Your task to perform on an android device: turn on improve location accuracy Image 0: 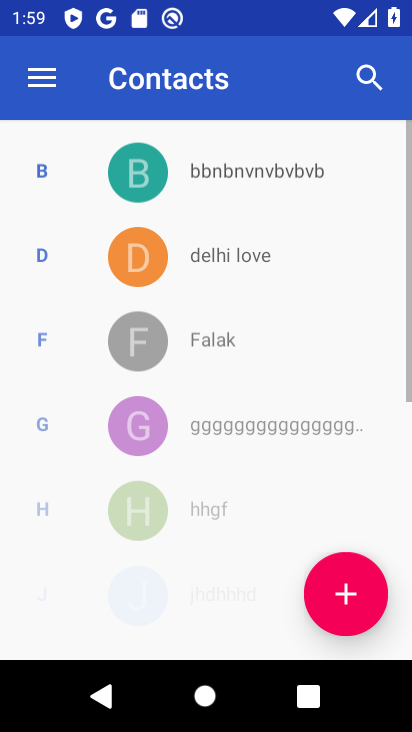
Step 0: drag from (201, 563) to (277, 99)
Your task to perform on an android device: turn on improve location accuracy Image 1: 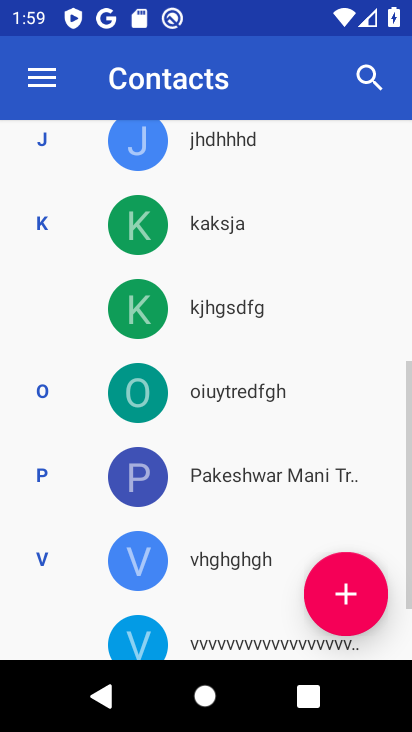
Step 1: press back button
Your task to perform on an android device: turn on improve location accuracy Image 2: 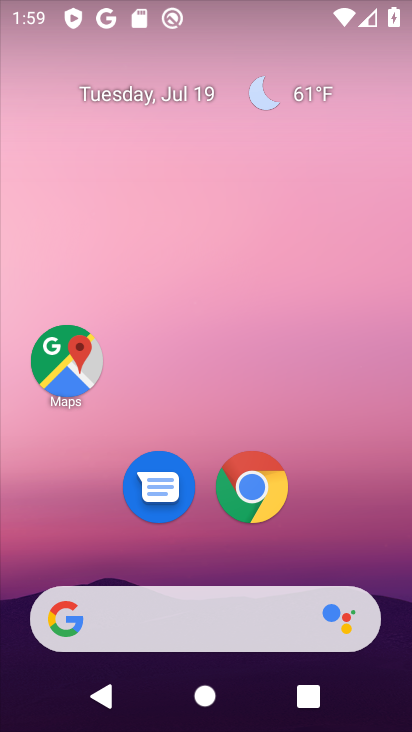
Step 2: drag from (222, 564) to (259, 26)
Your task to perform on an android device: turn on improve location accuracy Image 3: 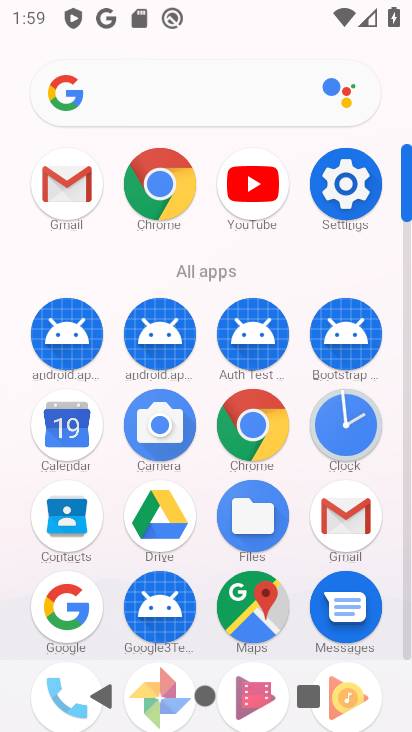
Step 3: click (343, 178)
Your task to perform on an android device: turn on improve location accuracy Image 4: 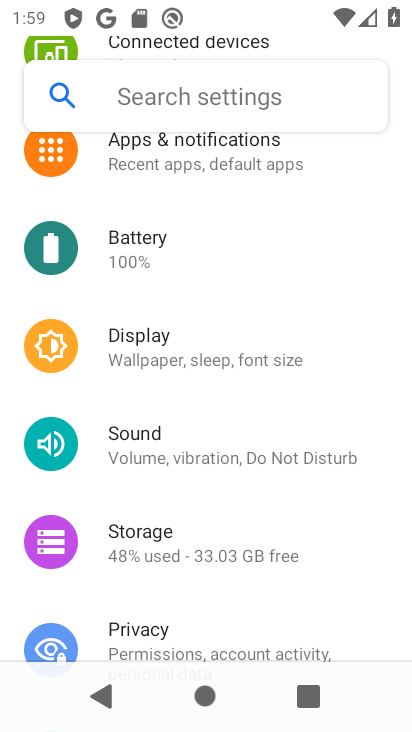
Step 4: drag from (177, 604) to (254, 83)
Your task to perform on an android device: turn on improve location accuracy Image 5: 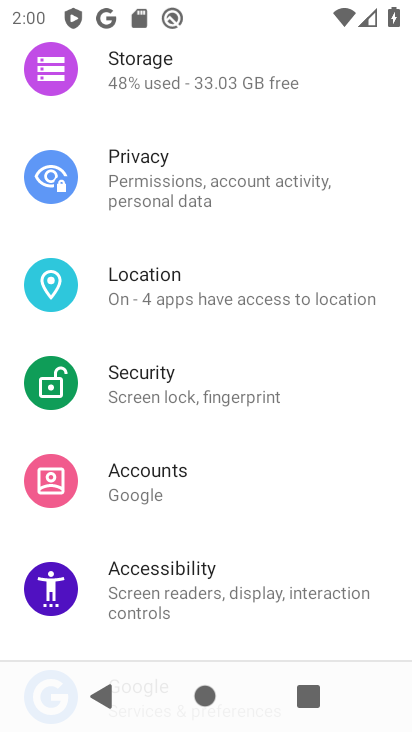
Step 5: click (147, 296)
Your task to perform on an android device: turn on improve location accuracy Image 6: 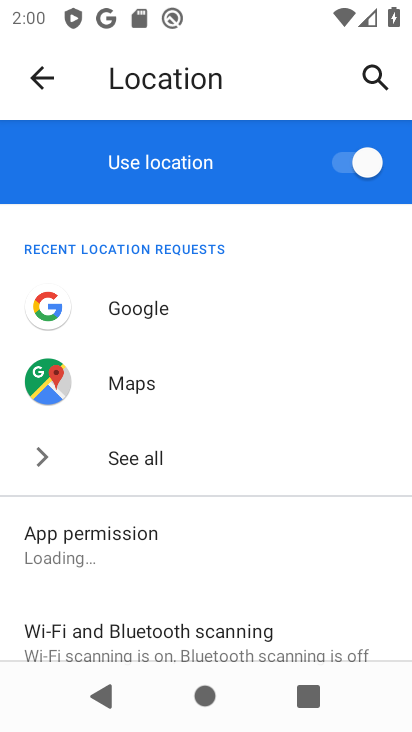
Step 6: drag from (110, 587) to (254, 44)
Your task to perform on an android device: turn on improve location accuracy Image 7: 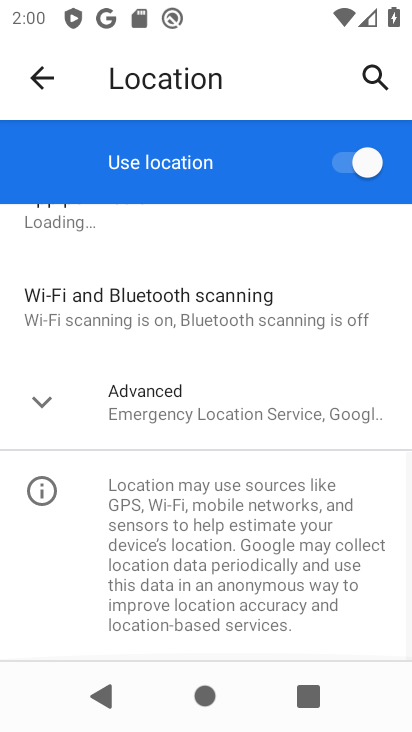
Step 7: click (184, 408)
Your task to perform on an android device: turn on improve location accuracy Image 8: 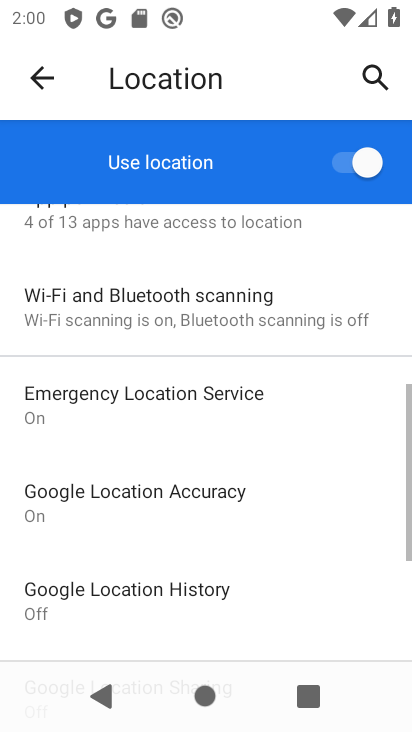
Step 8: click (182, 509)
Your task to perform on an android device: turn on improve location accuracy Image 9: 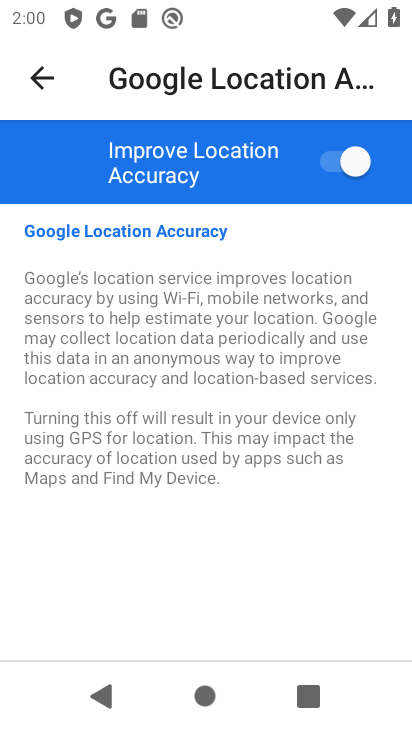
Step 9: task complete